Your task to perform on an android device: Open Google Chrome and open the bookmarks view Image 0: 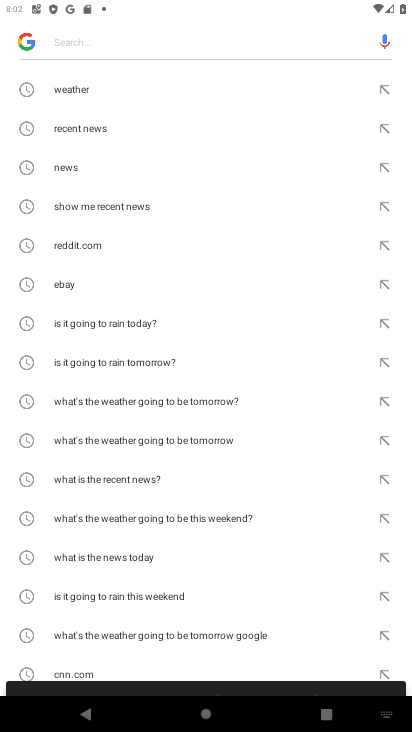
Step 0: press home button
Your task to perform on an android device: Open Google Chrome and open the bookmarks view Image 1: 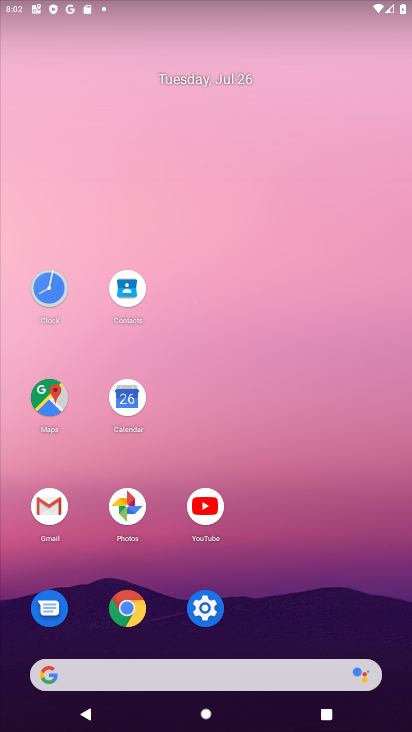
Step 1: click (123, 606)
Your task to perform on an android device: Open Google Chrome and open the bookmarks view Image 2: 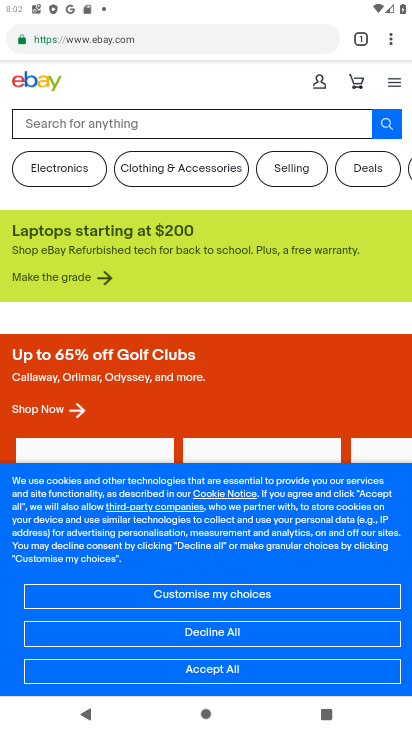
Step 2: click (389, 41)
Your task to perform on an android device: Open Google Chrome and open the bookmarks view Image 3: 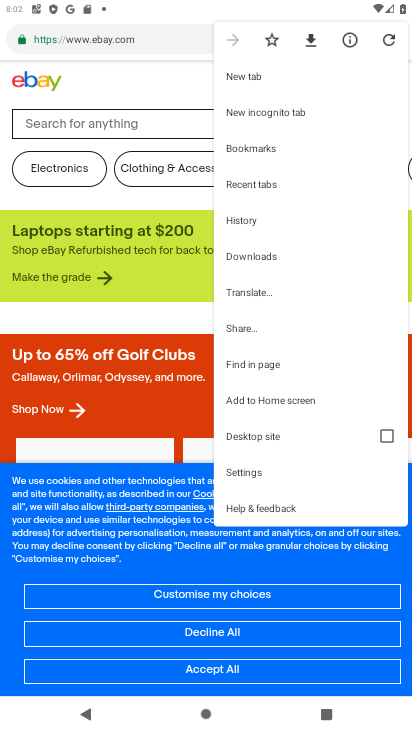
Step 3: click (256, 151)
Your task to perform on an android device: Open Google Chrome and open the bookmarks view Image 4: 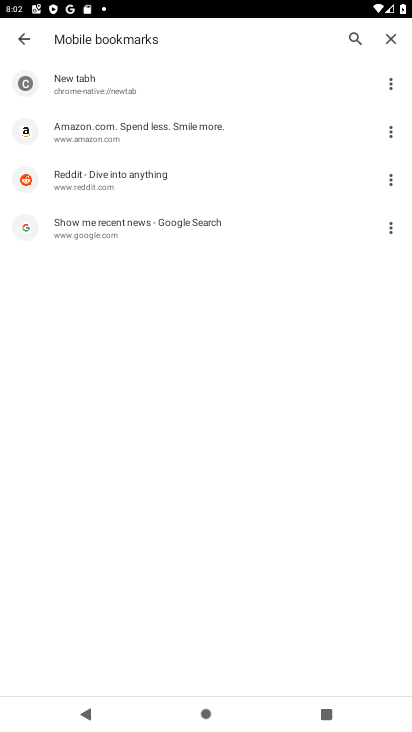
Step 4: click (388, 81)
Your task to perform on an android device: Open Google Chrome and open the bookmarks view Image 5: 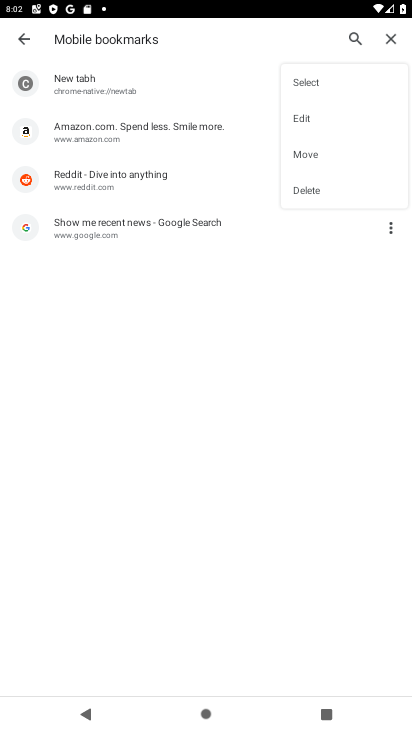
Step 5: click (309, 113)
Your task to perform on an android device: Open Google Chrome and open the bookmarks view Image 6: 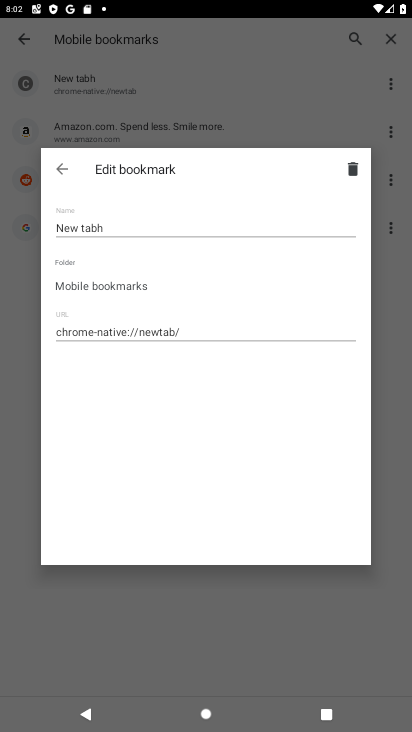
Step 6: task complete